Your task to perform on an android device: toggle javascript in the chrome app Image 0: 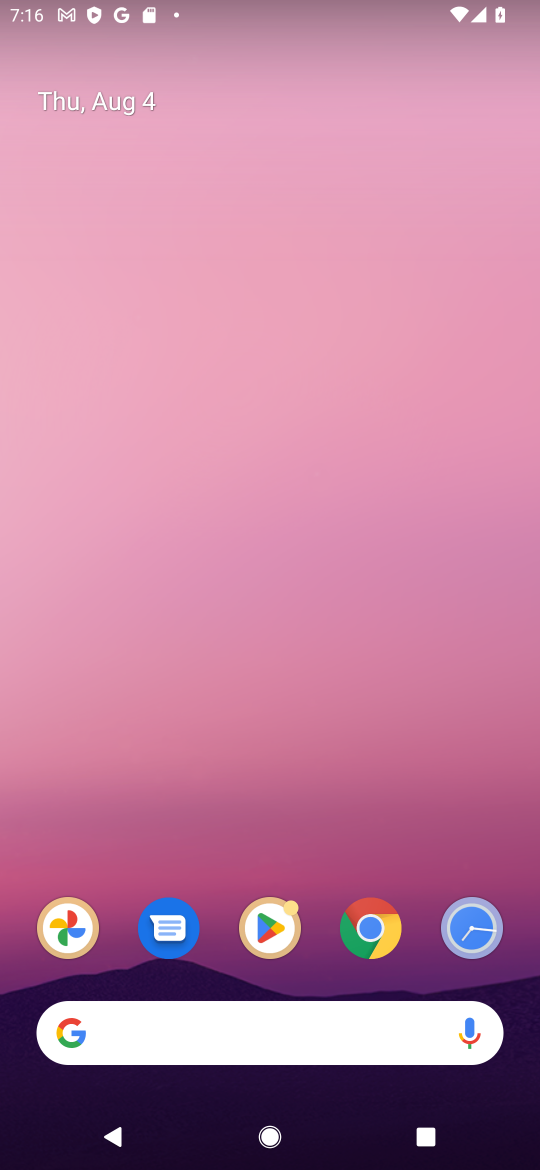
Step 0: click (374, 942)
Your task to perform on an android device: toggle javascript in the chrome app Image 1: 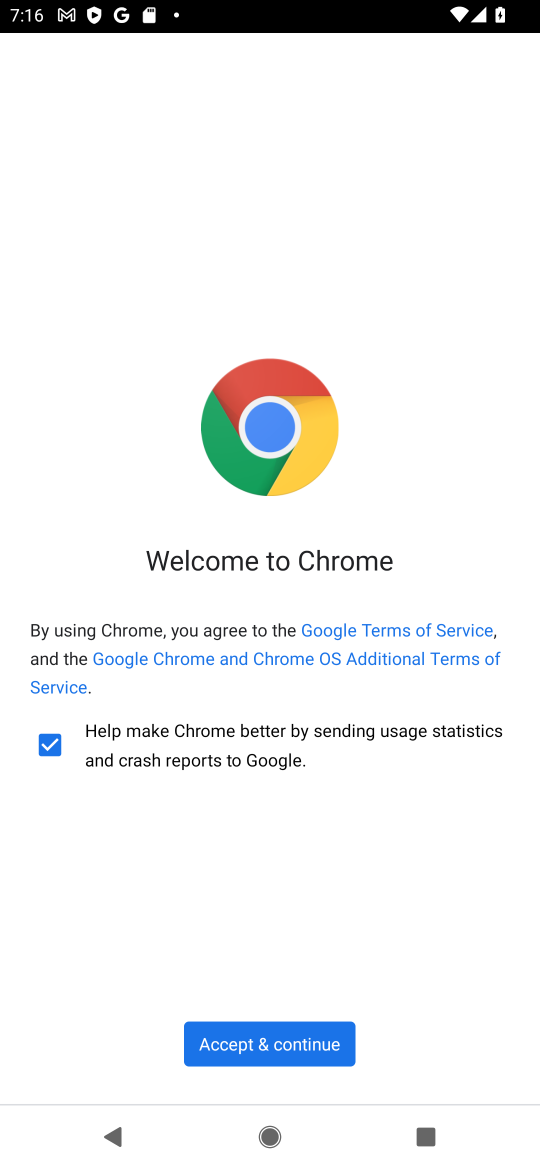
Step 1: click (285, 1038)
Your task to perform on an android device: toggle javascript in the chrome app Image 2: 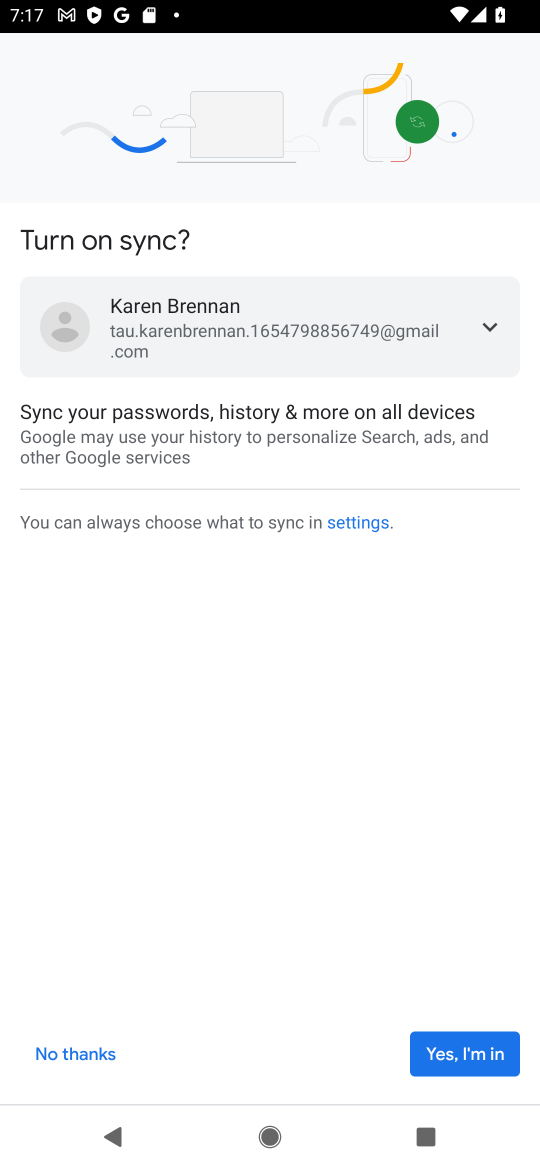
Step 2: click (426, 1063)
Your task to perform on an android device: toggle javascript in the chrome app Image 3: 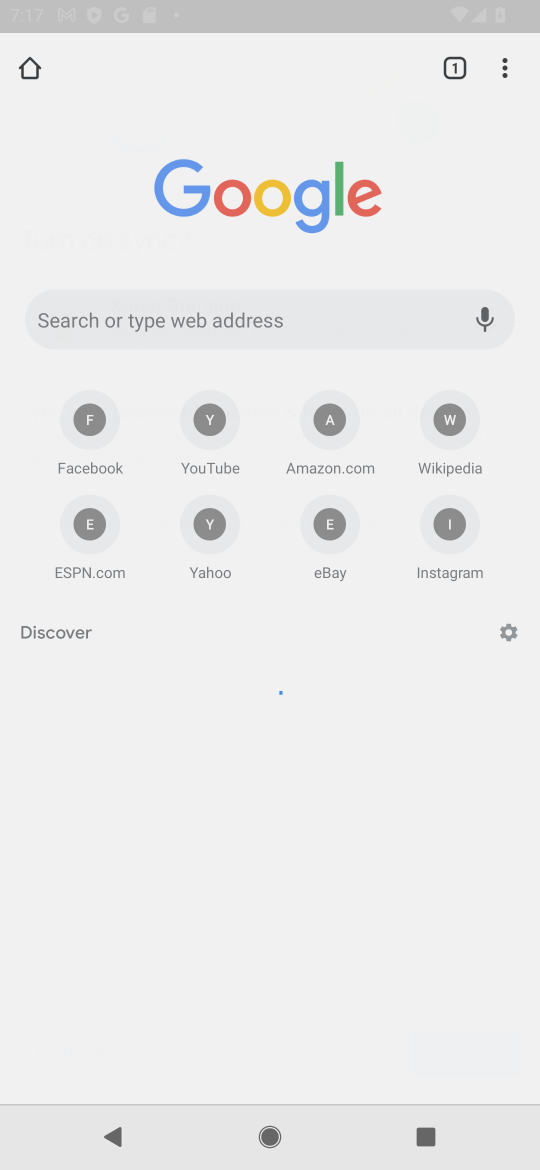
Step 3: click (491, 1048)
Your task to perform on an android device: toggle javascript in the chrome app Image 4: 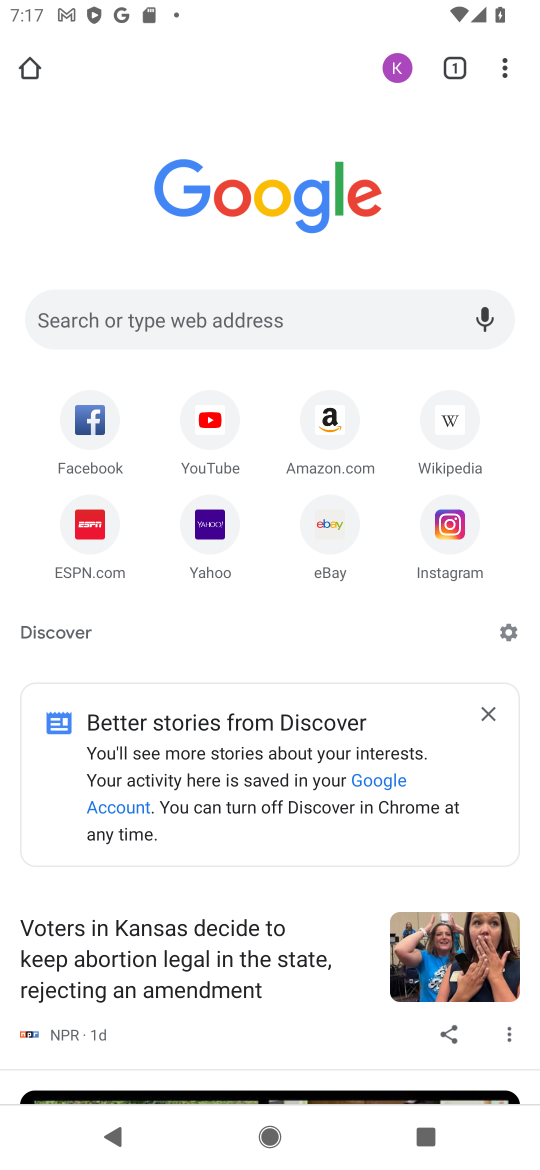
Step 4: click (510, 57)
Your task to perform on an android device: toggle javascript in the chrome app Image 5: 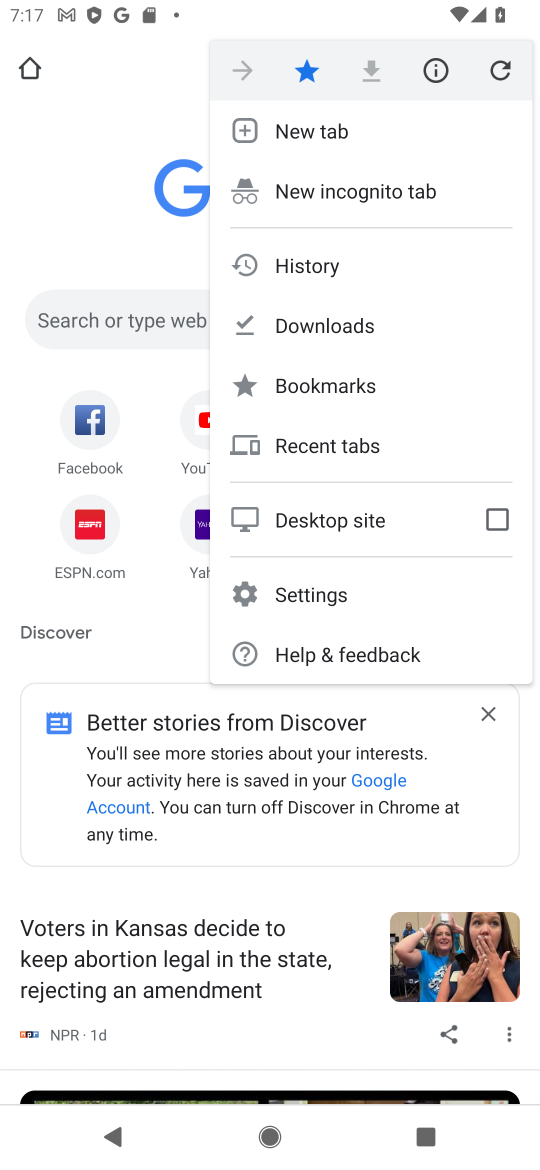
Step 5: click (319, 595)
Your task to perform on an android device: toggle javascript in the chrome app Image 6: 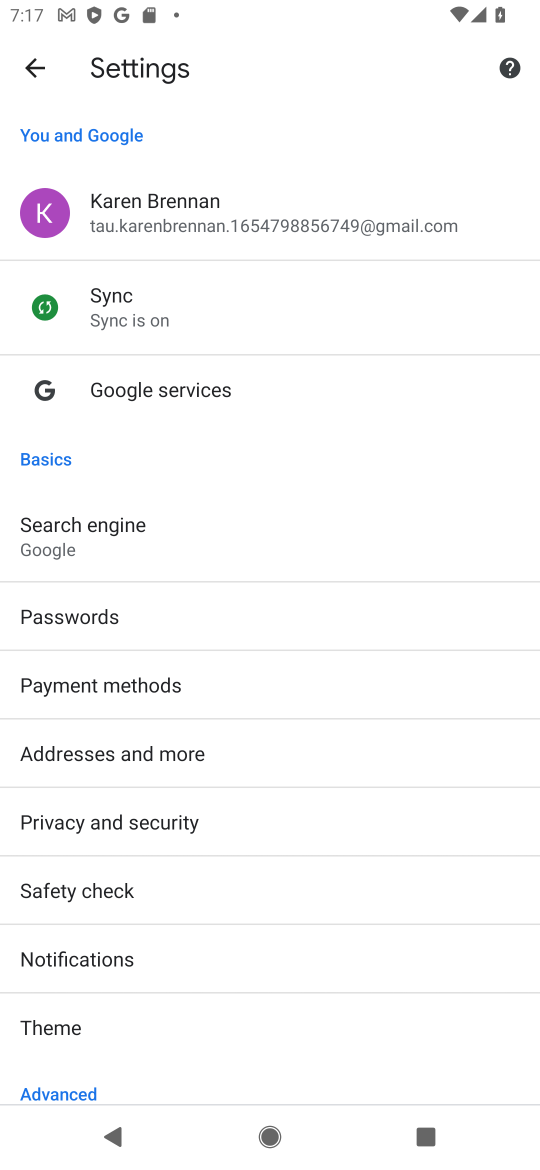
Step 6: drag from (138, 953) to (114, 551)
Your task to perform on an android device: toggle javascript in the chrome app Image 7: 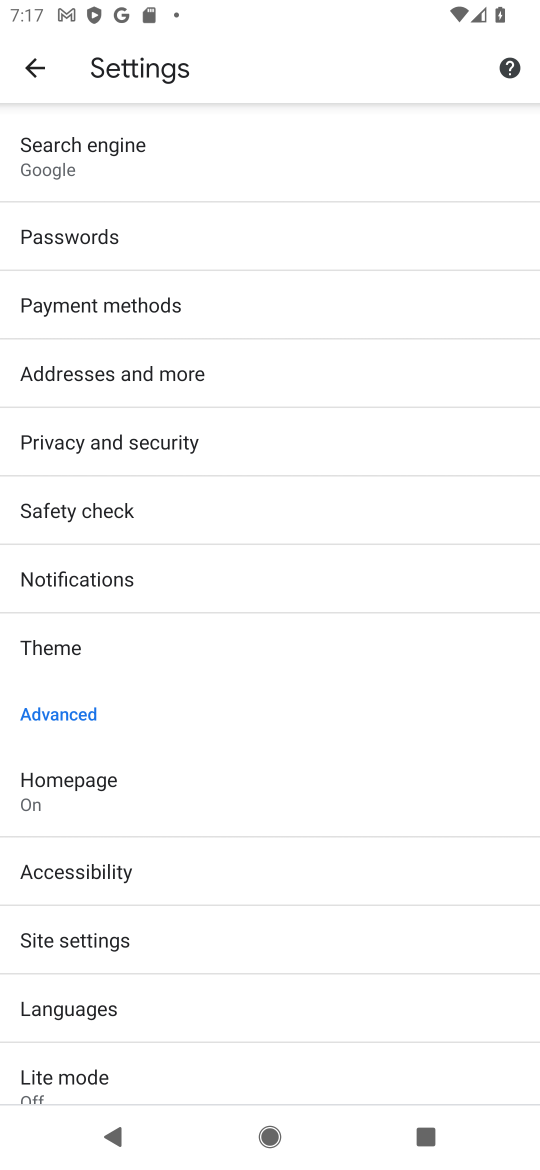
Step 7: click (104, 943)
Your task to perform on an android device: toggle javascript in the chrome app Image 8: 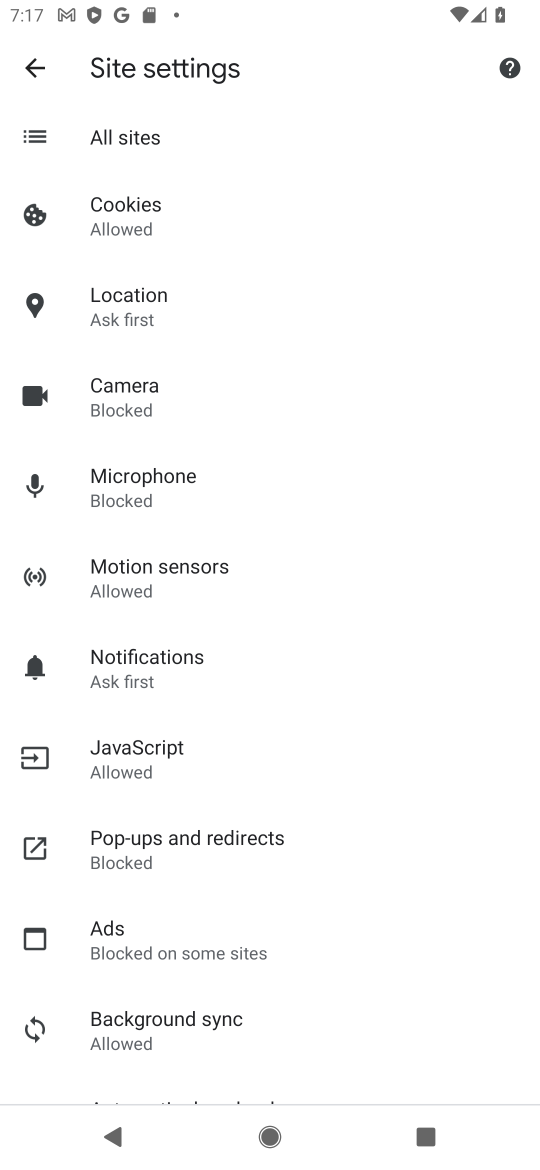
Step 8: click (142, 756)
Your task to perform on an android device: toggle javascript in the chrome app Image 9: 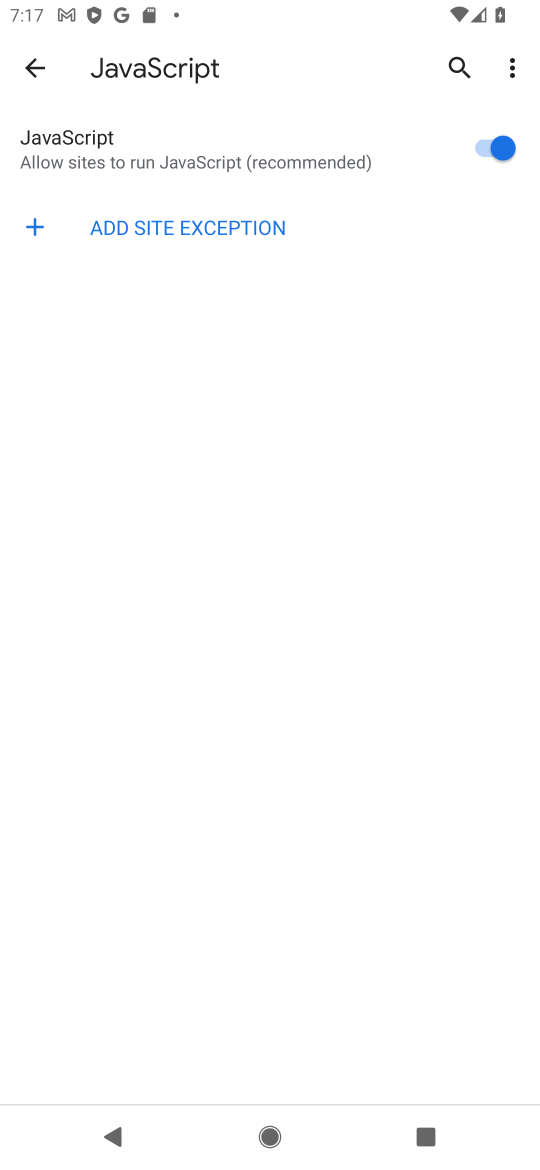
Step 9: click (442, 144)
Your task to perform on an android device: toggle javascript in the chrome app Image 10: 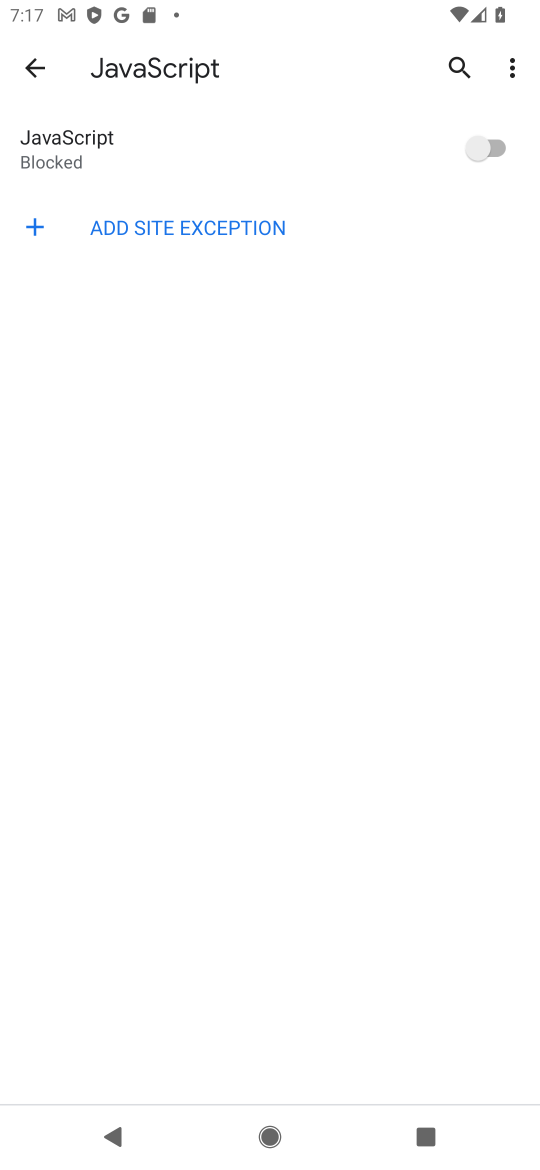
Step 10: task complete